Your task to perform on an android device: Play the last video I watched on Youtube Image 0: 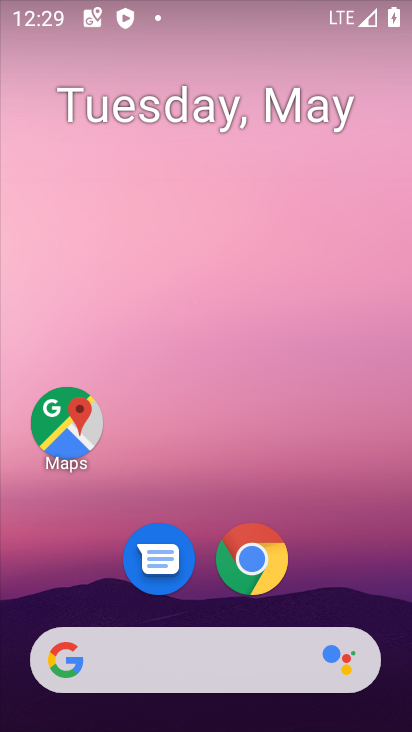
Step 0: drag from (355, 563) to (332, 22)
Your task to perform on an android device: Play the last video I watched on Youtube Image 1: 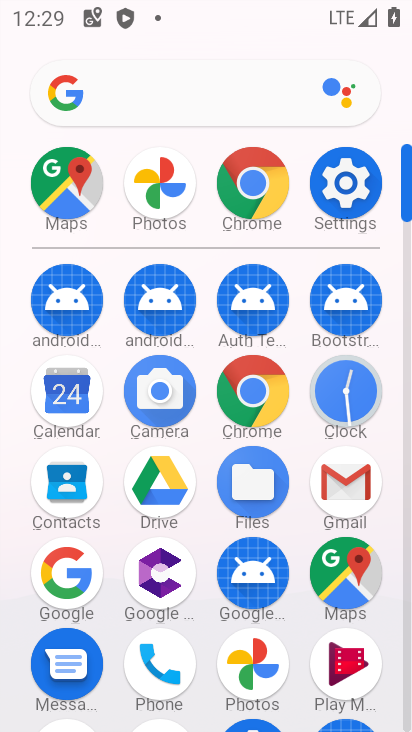
Step 1: click (406, 723)
Your task to perform on an android device: Play the last video I watched on Youtube Image 2: 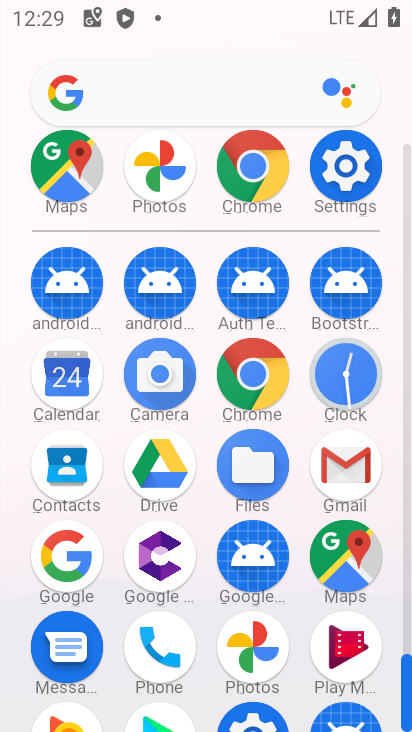
Step 2: click (406, 723)
Your task to perform on an android device: Play the last video I watched on Youtube Image 3: 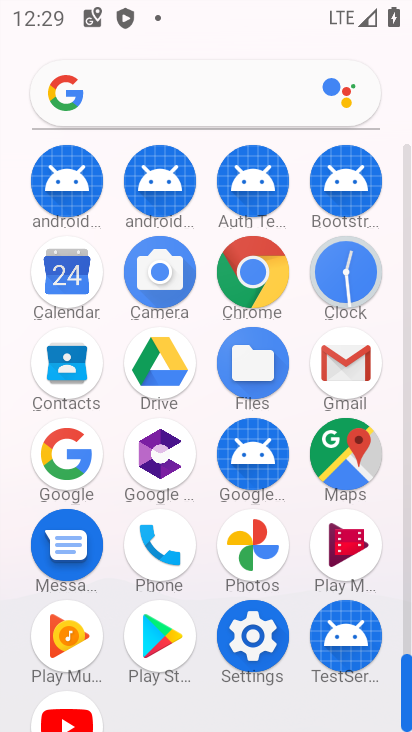
Step 3: click (76, 703)
Your task to perform on an android device: Play the last video I watched on Youtube Image 4: 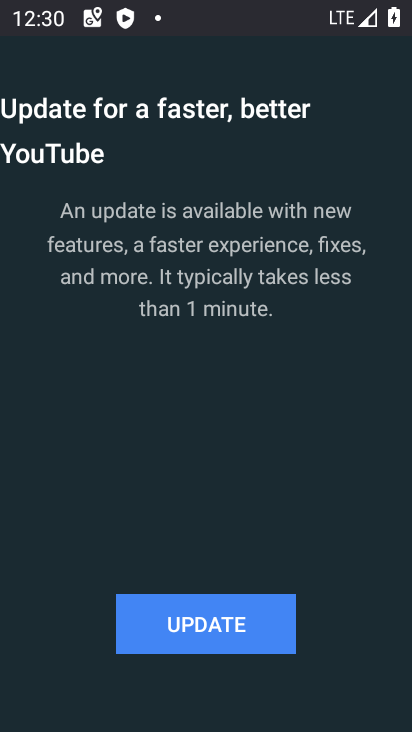
Step 4: click (202, 626)
Your task to perform on an android device: Play the last video I watched on Youtube Image 5: 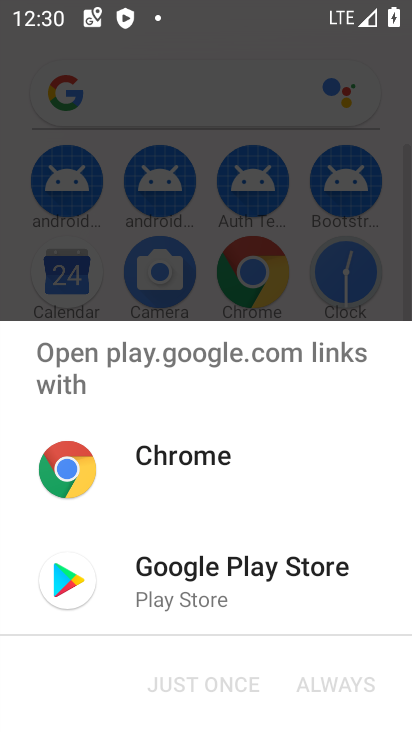
Step 5: click (184, 600)
Your task to perform on an android device: Play the last video I watched on Youtube Image 6: 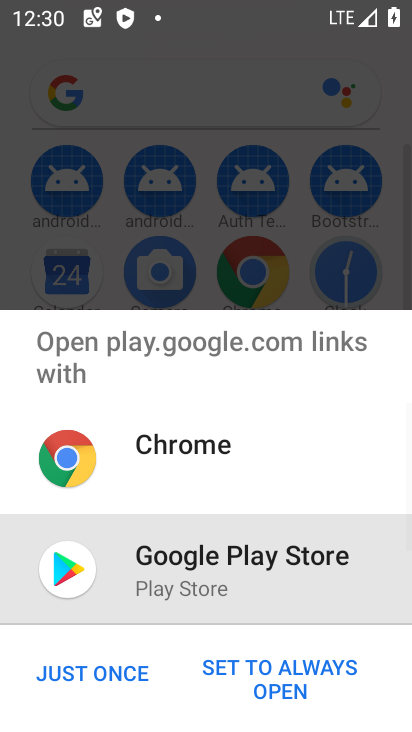
Step 6: click (32, 676)
Your task to perform on an android device: Play the last video I watched on Youtube Image 7: 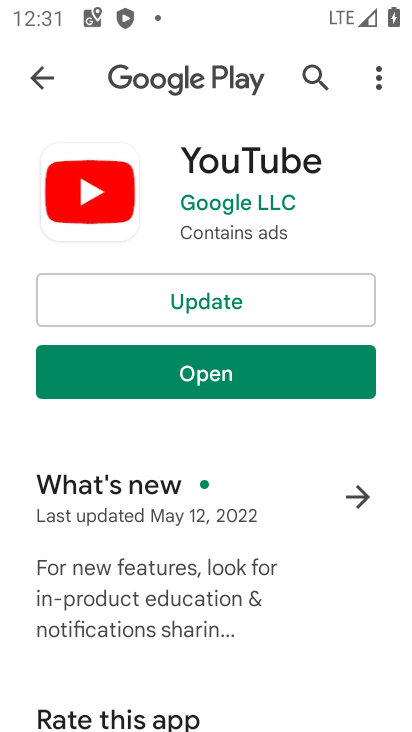
Step 7: click (256, 311)
Your task to perform on an android device: Play the last video I watched on Youtube Image 8: 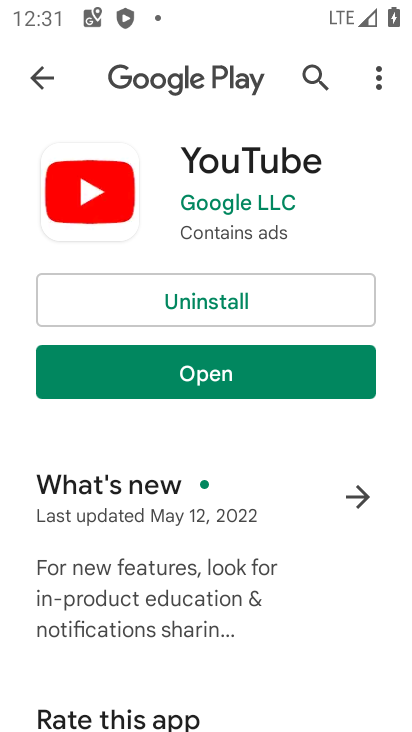
Step 8: click (288, 367)
Your task to perform on an android device: Play the last video I watched on Youtube Image 9: 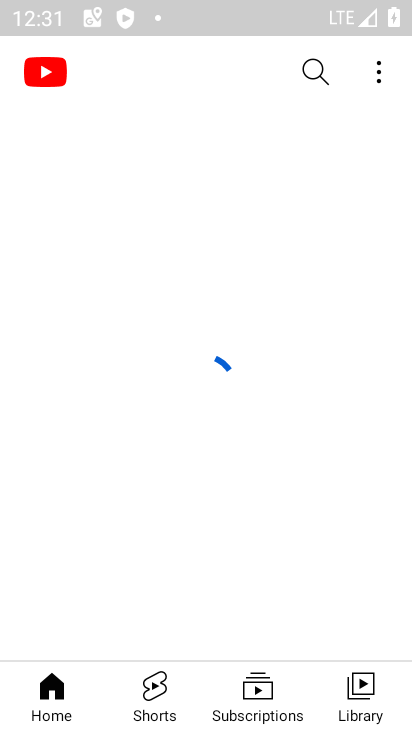
Step 9: click (345, 694)
Your task to perform on an android device: Play the last video I watched on Youtube Image 10: 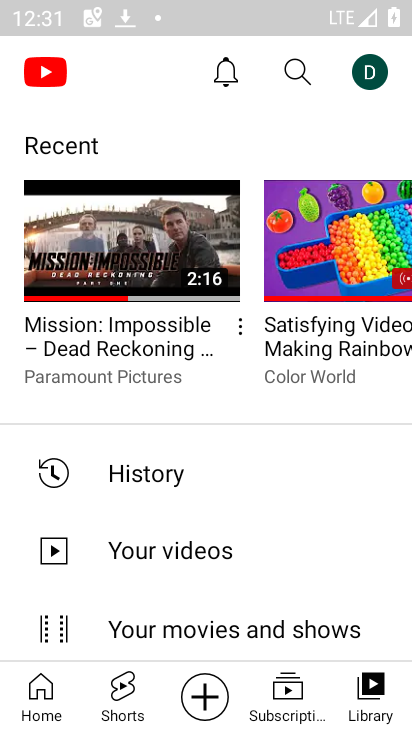
Step 10: task complete